Your task to perform on an android device: Go to Yahoo.com Image 0: 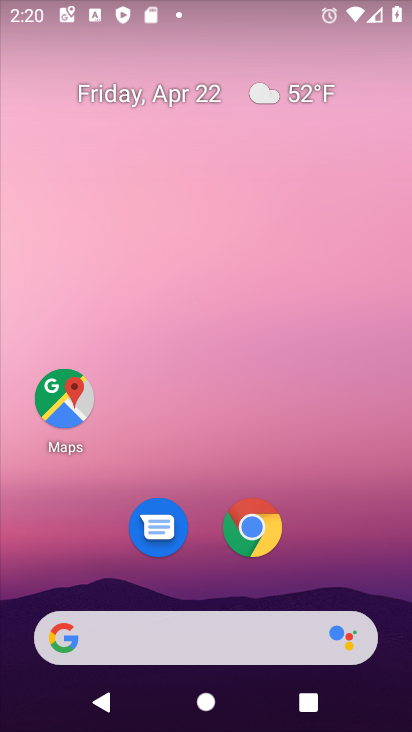
Step 0: drag from (335, 513) to (263, 135)
Your task to perform on an android device: Go to Yahoo.com Image 1: 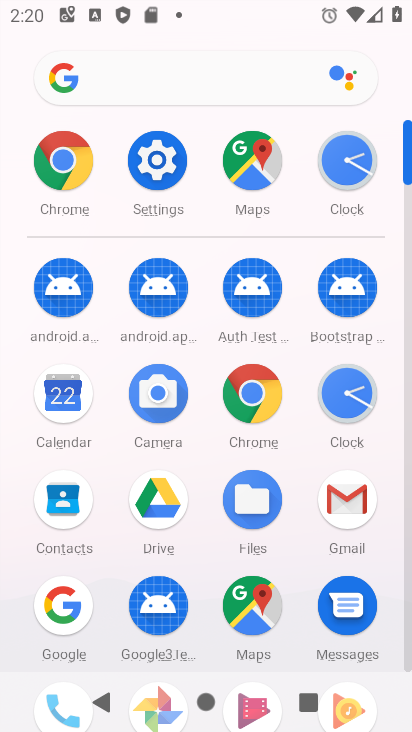
Step 1: click (254, 398)
Your task to perform on an android device: Go to Yahoo.com Image 2: 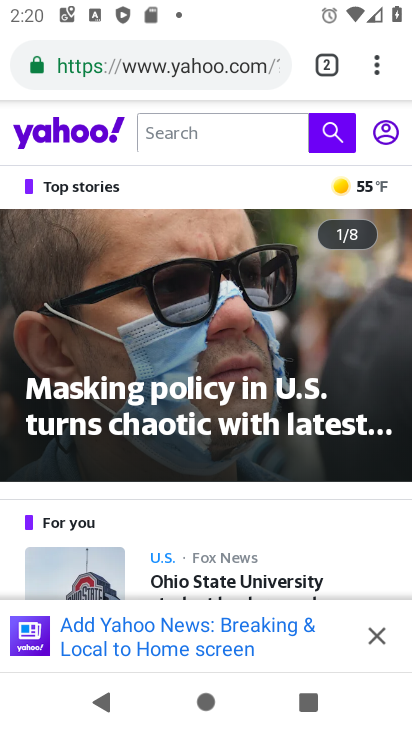
Step 2: task complete